Your task to perform on an android device: Search for pizza restaurants on Maps Image 0: 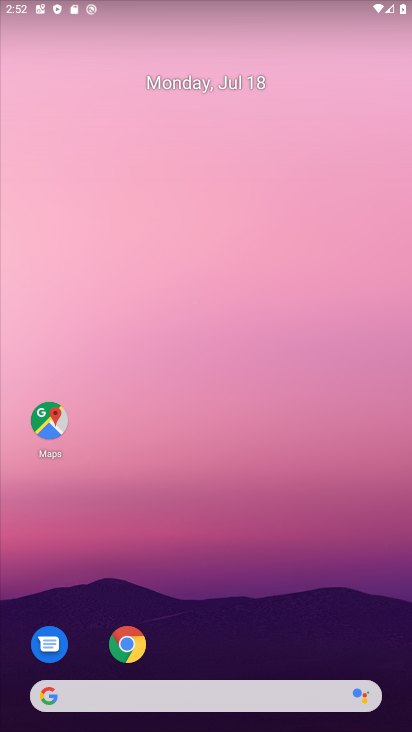
Step 0: click (57, 409)
Your task to perform on an android device: Search for pizza restaurants on Maps Image 1: 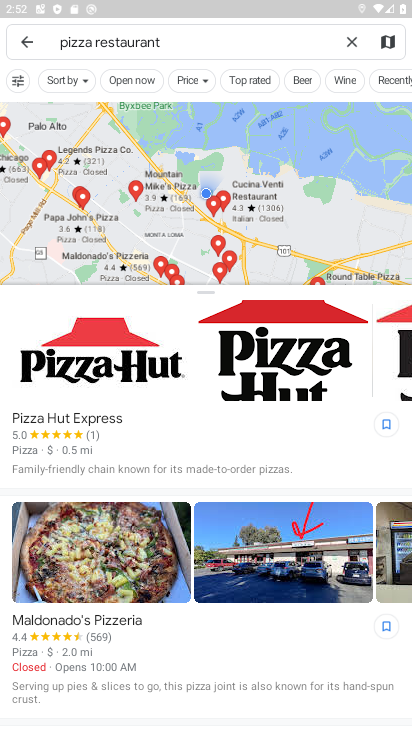
Step 1: task complete